Your task to perform on an android device: Go to internet settings Image 0: 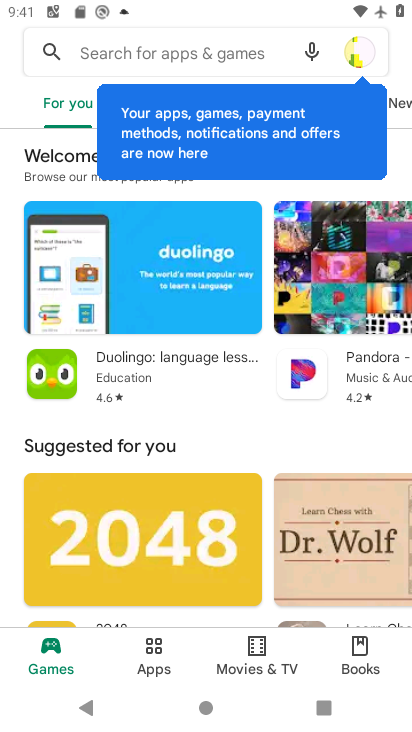
Step 0: press home button
Your task to perform on an android device: Go to internet settings Image 1: 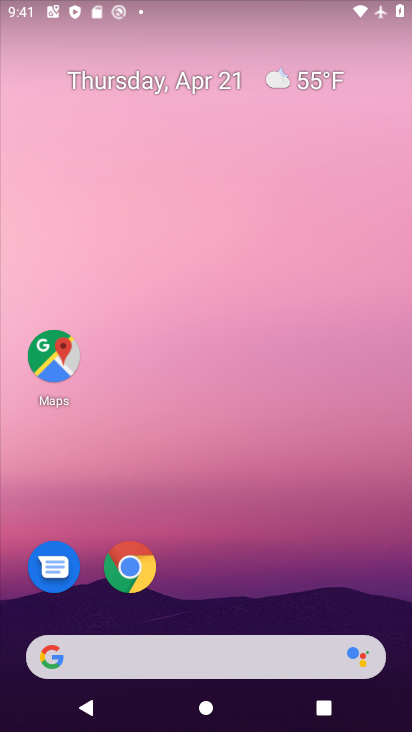
Step 1: drag from (349, 601) to (232, 100)
Your task to perform on an android device: Go to internet settings Image 2: 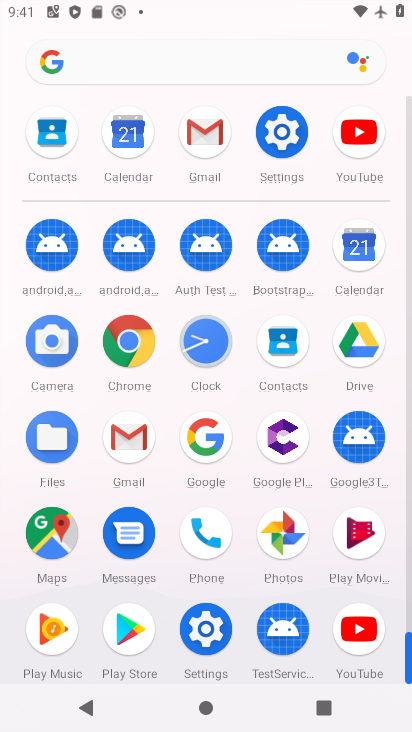
Step 2: click (206, 626)
Your task to perform on an android device: Go to internet settings Image 3: 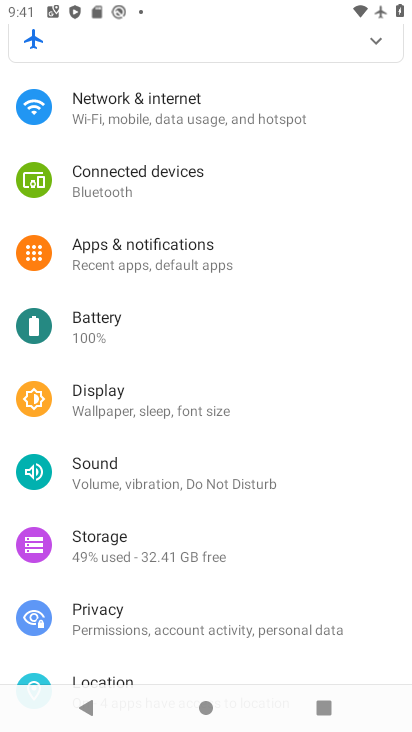
Step 3: click (105, 91)
Your task to perform on an android device: Go to internet settings Image 4: 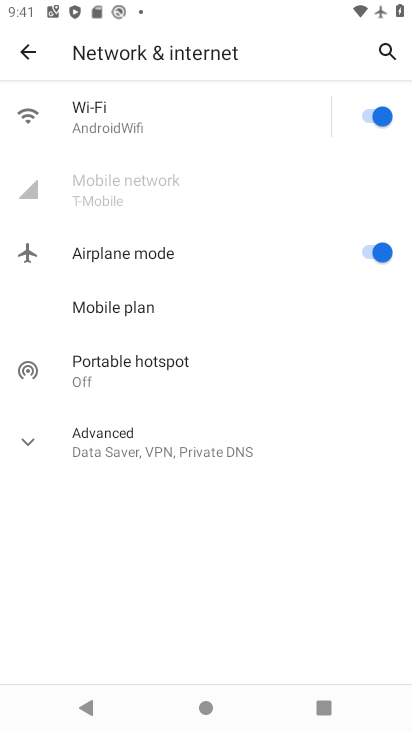
Step 4: click (23, 441)
Your task to perform on an android device: Go to internet settings Image 5: 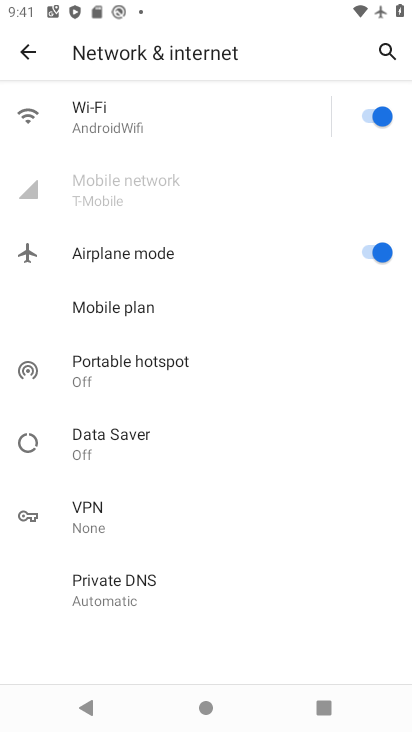
Step 5: task complete